Your task to perform on an android device: Go to notification settings Image 0: 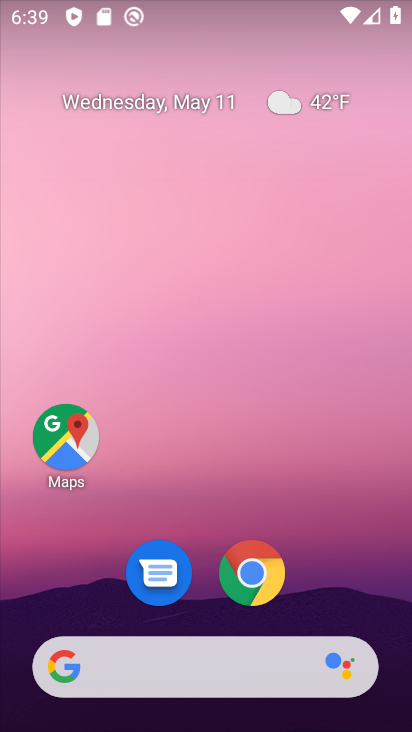
Step 0: drag from (318, 587) to (294, 13)
Your task to perform on an android device: Go to notification settings Image 1: 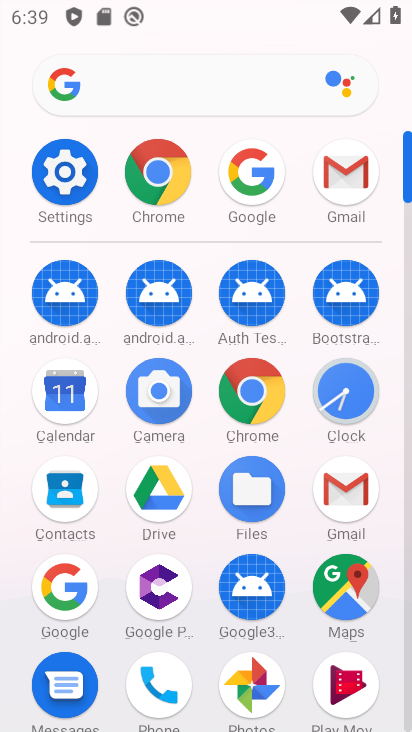
Step 1: click (62, 174)
Your task to perform on an android device: Go to notification settings Image 2: 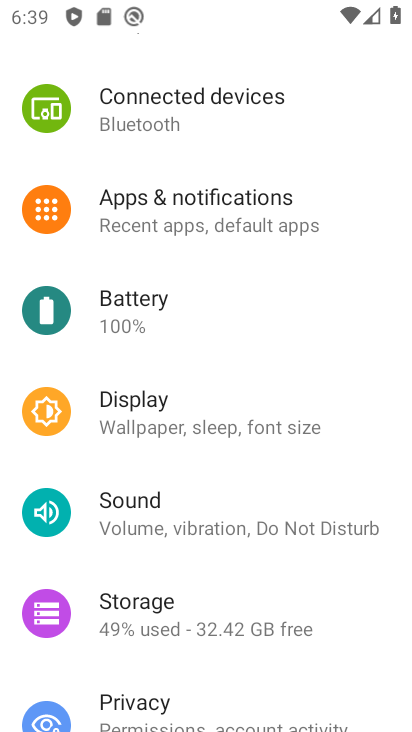
Step 2: click (185, 234)
Your task to perform on an android device: Go to notification settings Image 3: 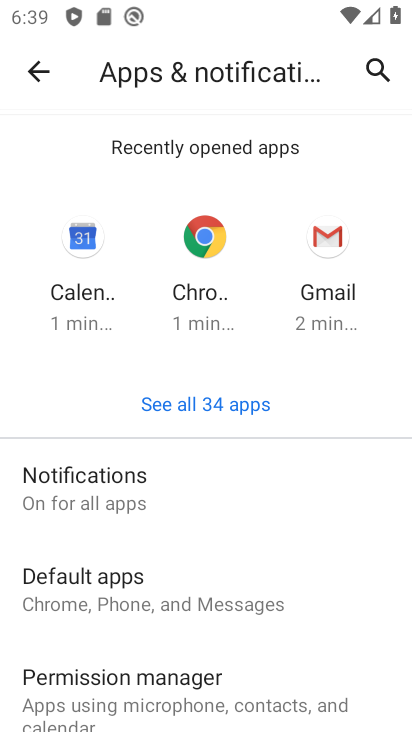
Step 3: task complete